Your task to perform on an android device: Open accessibility settings Image 0: 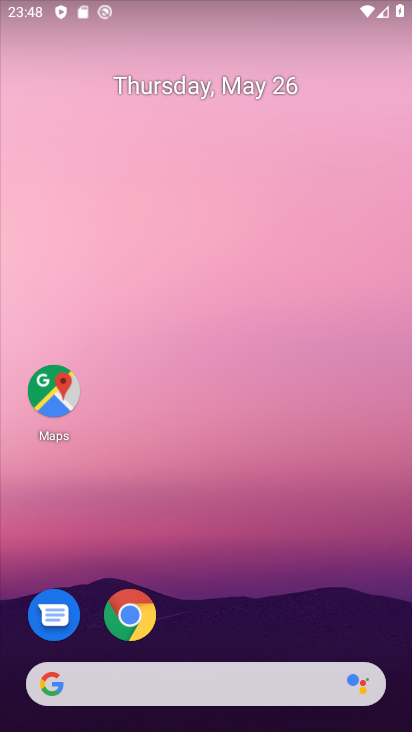
Step 0: drag from (350, 607) to (355, 221)
Your task to perform on an android device: Open accessibility settings Image 1: 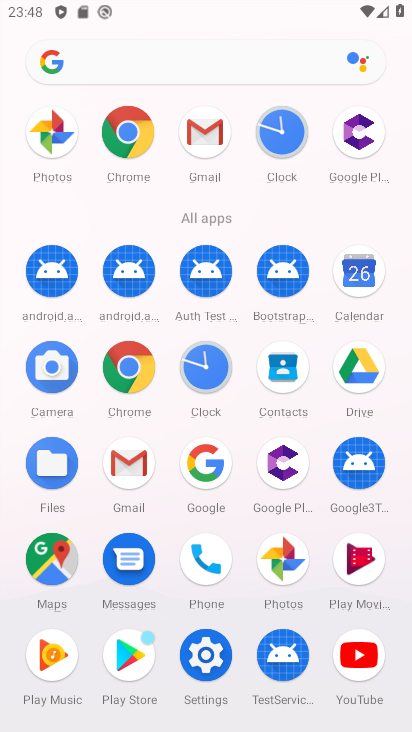
Step 1: click (206, 658)
Your task to perform on an android device: Open accessibility settings Image 2: 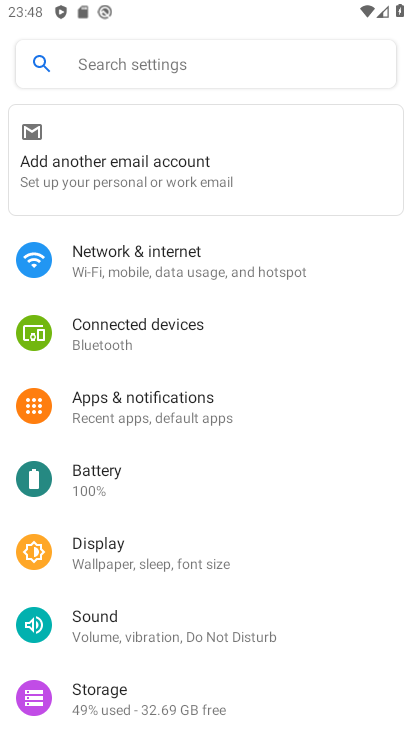
Step 2: drag from (323, 559) to (329, 449)
Your task to perform on an android device: Open accessibility settings Image 3: 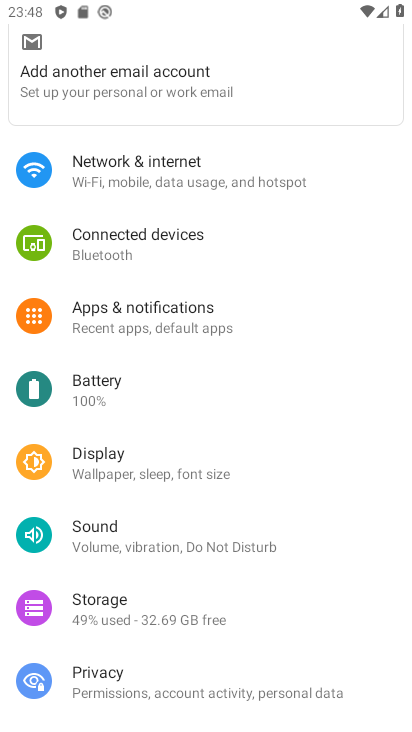
Step 3: drag from (342, 606) to (341, 488)
Your task to perform on an android device: Open accessibility settings Image 4: 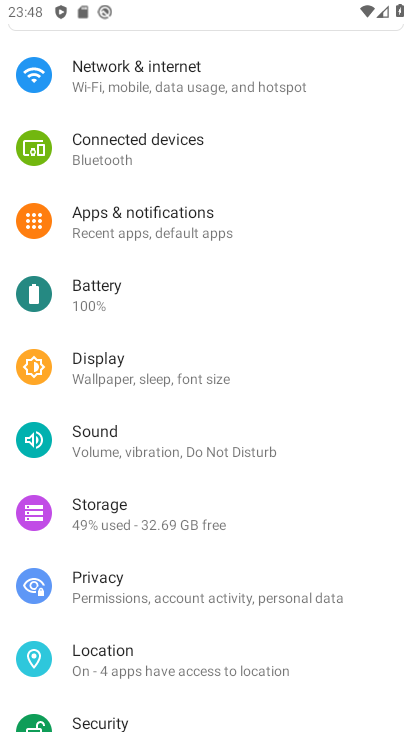
Step 4: drag from (338, 612) to (346, 473)
Your task to perform on an android device: Open accessibility settings Image 5: 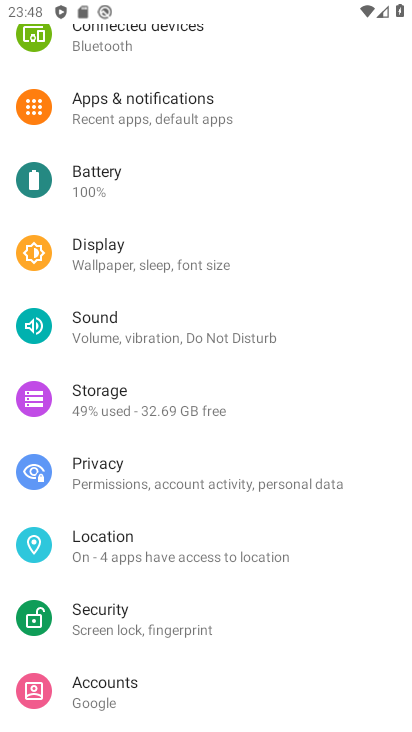
Step 5: drag from (349, 608) to (347, 452)
Your task to perform on an android device: Open accessibility settings Image 6: 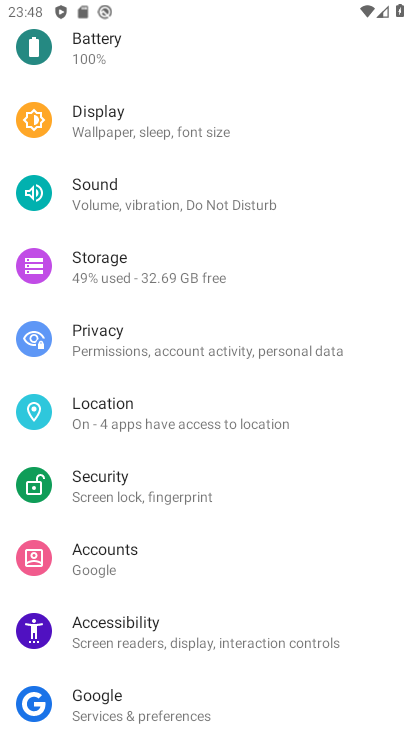
Step 6: drag from (364, 652) to (357, 517)
Your task to perform on an android device: Open accessibility settings Image 7: 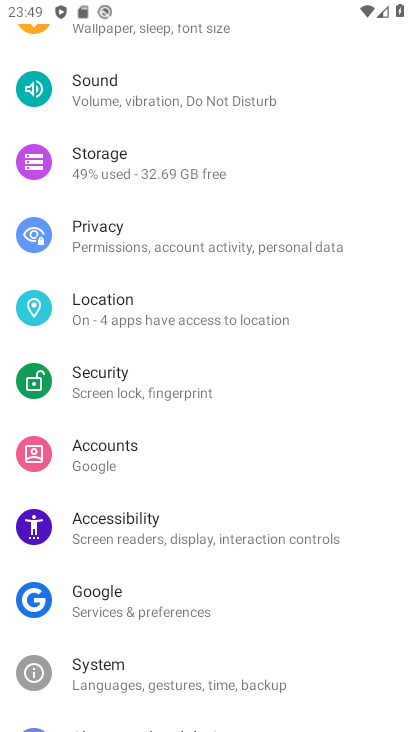
Step 7: drag from (353, 615) to (356, 469)
Your task to perform on an android device: Open accessibility settings Image 8: 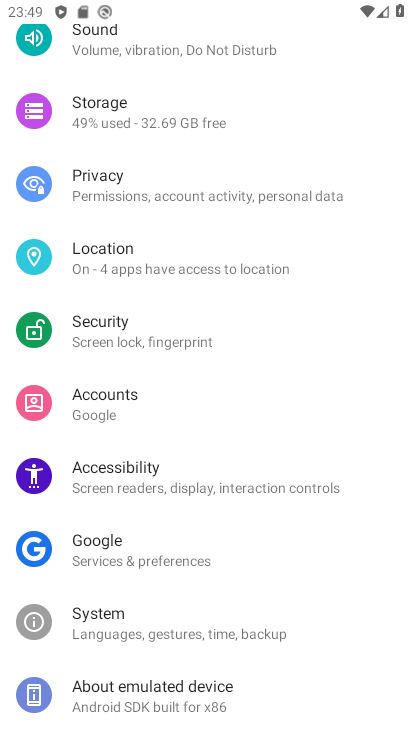
Step 8: click (296, 475)
Your task to perform on an android device: Open accessibility settings Image 9: 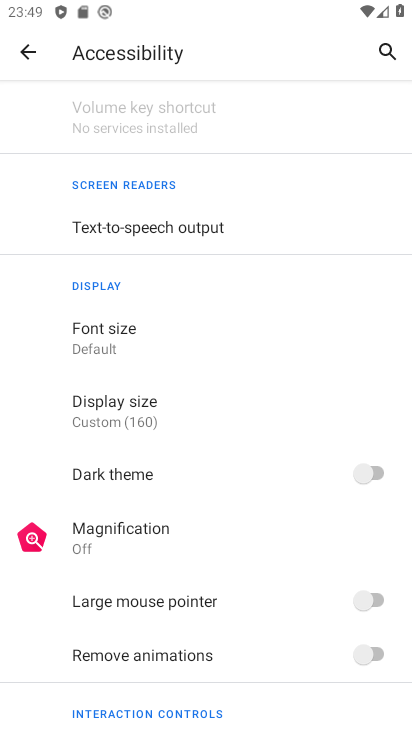
Step 9: task complete